Your task to perform on an android device: change the clock display to digital Image 0: 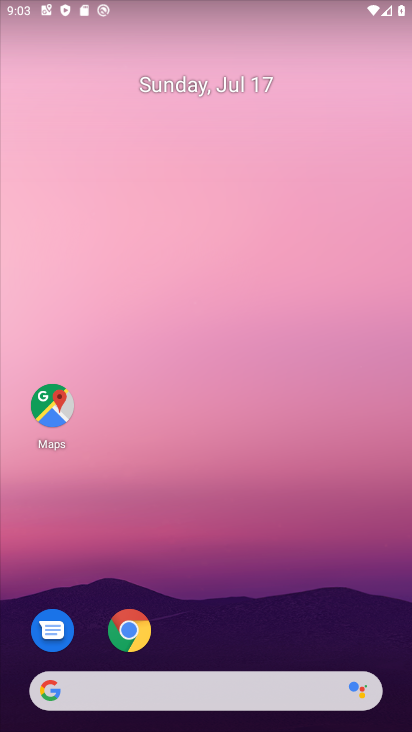
Step 0: press home button
Your task to perform on an android device: change the clock display to digital Image 1: 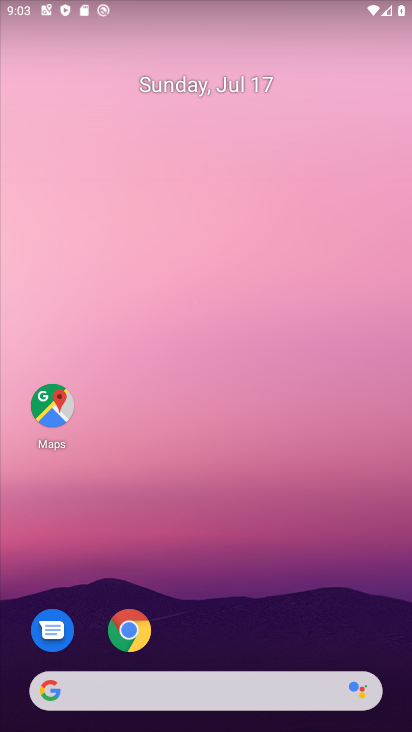
Step 1: drag from (308, 698) to (327, 56)
Your task to perform on an android device: change the clock display to digital Image 2: 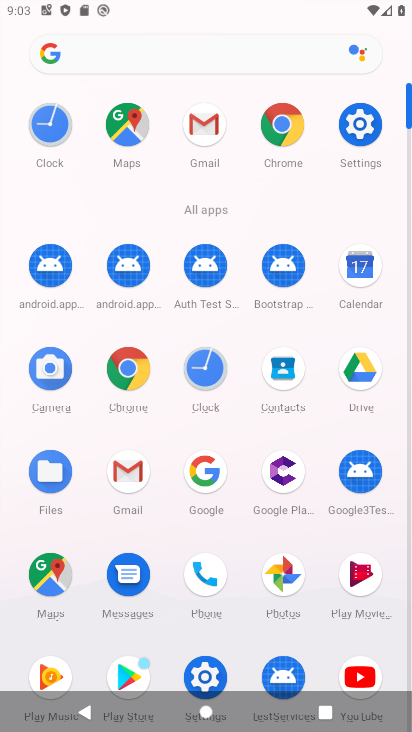
Step 2: click (207, 366)
Your task to perform on an android device: change the clock display to digital Image 3: 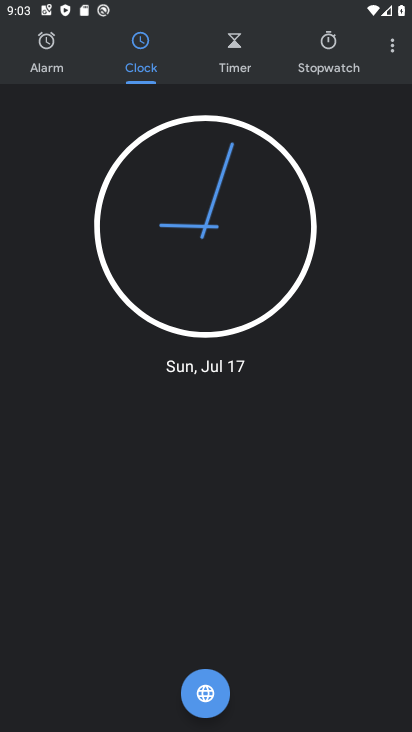
Step 3: click (388, 31)
Your task to perform on an android device: change the clock display to digital Image 4: 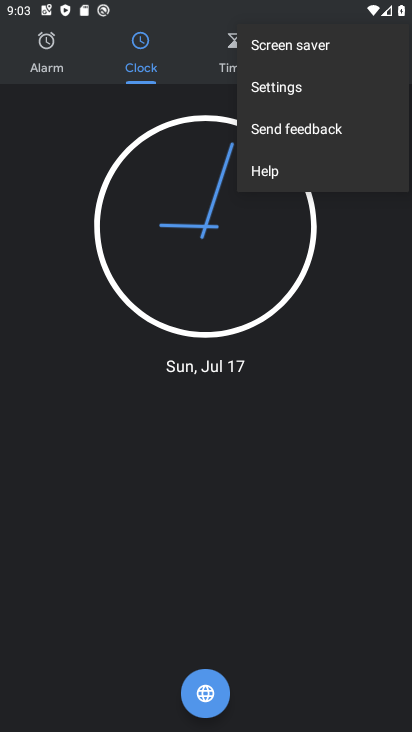
Step 4: click (319, 85)
Your task to perform on an android device: change the clock display to digital Image 5: 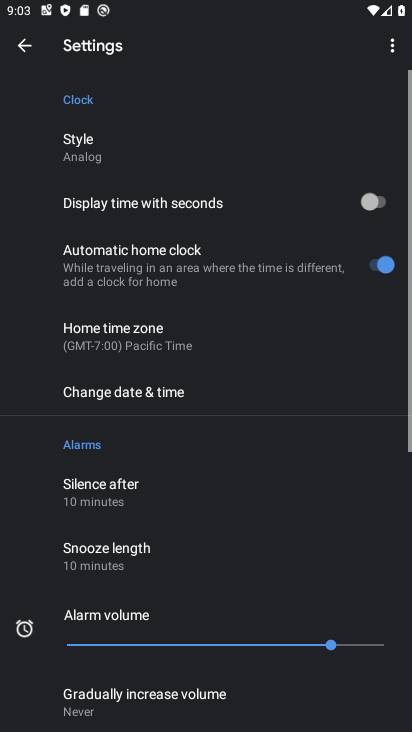
Step 5: click (238, 154)
Your task to perform on an android device: change the clock display to digital Image 6: 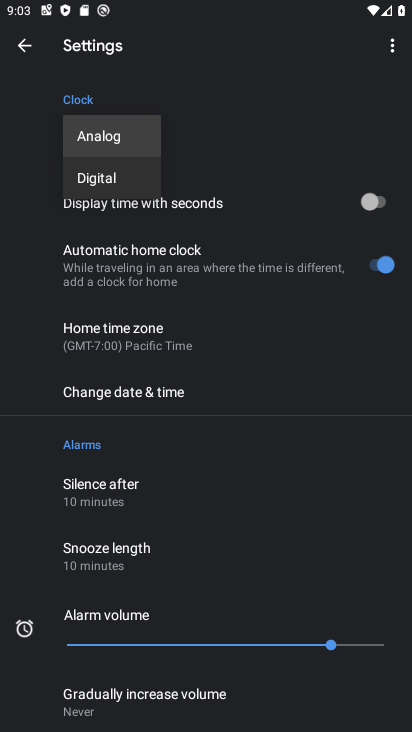
Step 6: click (138, 179)
Your task to perform on an android device: change the clock display to digital Image 7: 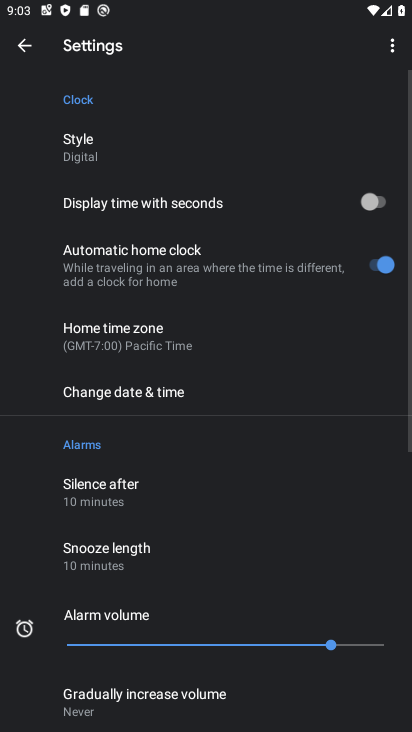
Step 7: task complete